Your task to perform on an android device: Open Google Image 0: 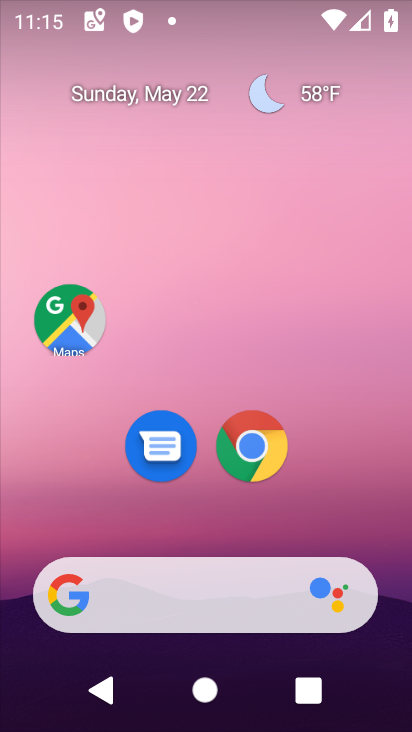
Step 0: drag from (209, 516) to (285, 57)
Your task to perform on an android device: Open Google Image 1: 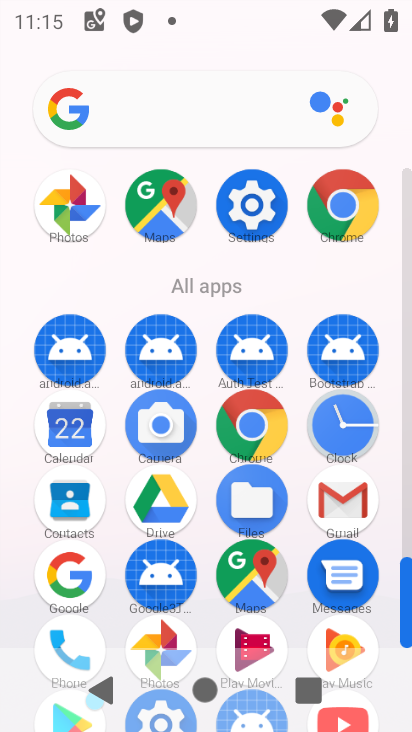
Step 1: click (54, 576)
Your task to perform on an android device: Open Google Image 2: 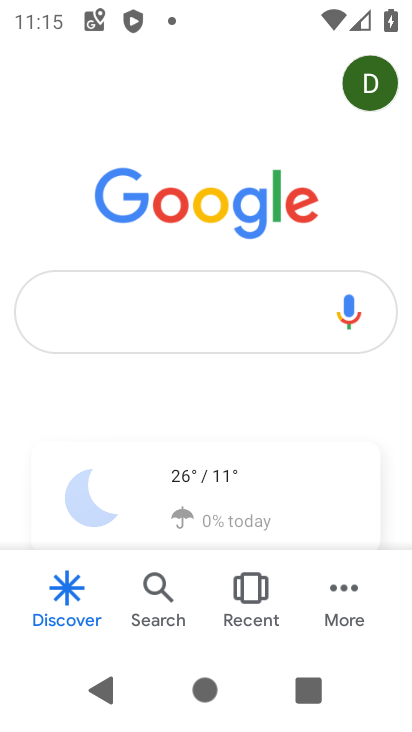
Step 2: task complete